Your task to perform on an android device: change the clock display to digital Image 0: 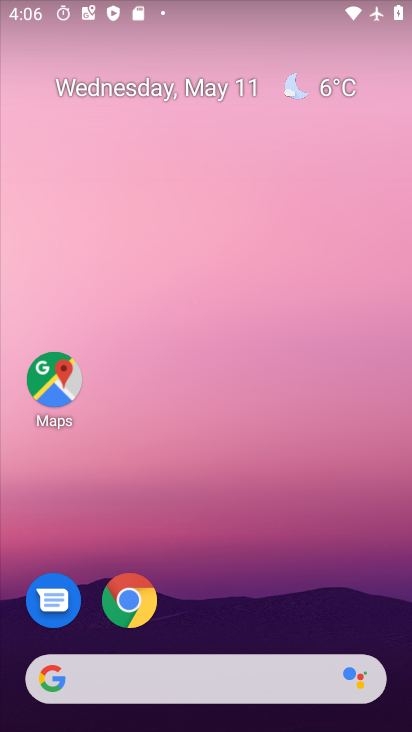
Step 0: drag from (373, 706) to (220, 217)
Your task to perform on an android device: change the clock display to digital Image 1: 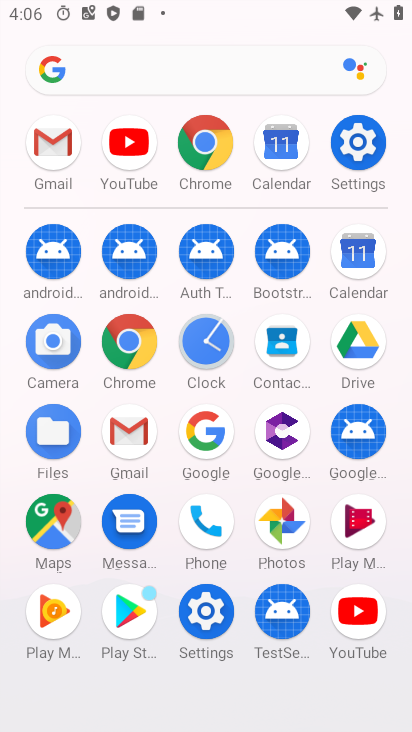
Step 1: click (201, 348)
Your task to perform on an android device: change the clock display to digital Image 2: 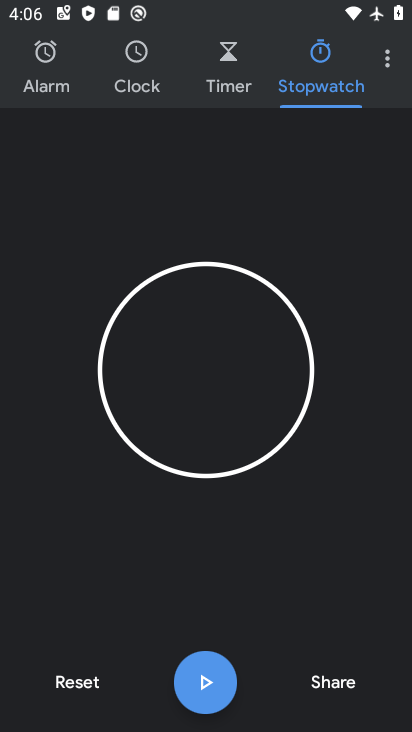
Step 2: click (387, 46)
Your task to perform on an android device: change the clock display to digital Image 3: 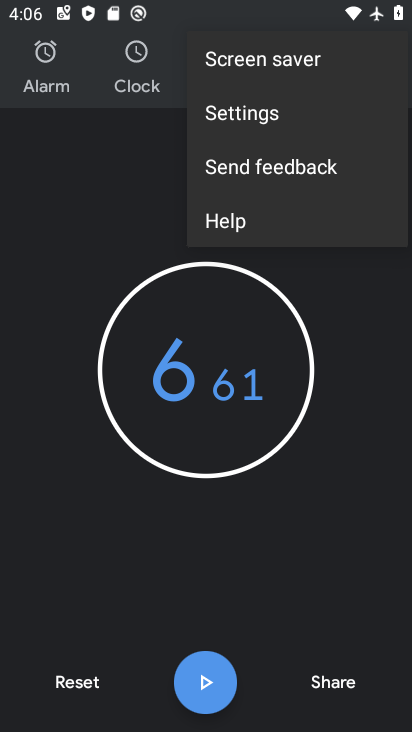
Step 3: click (260, 120)
Your task to perform on an android device: change the clock display to digital Image 4: 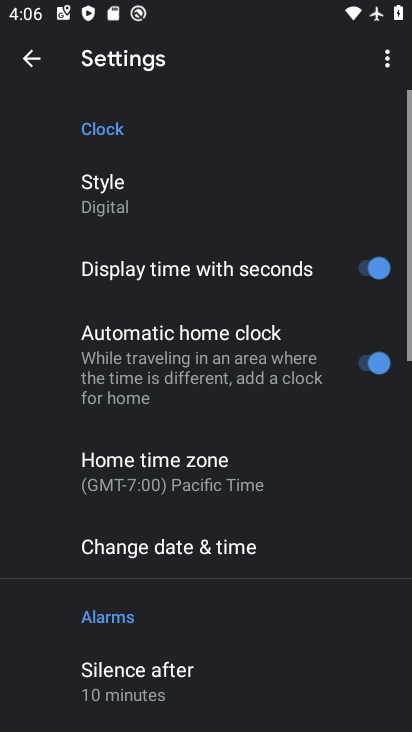
Step 4: click (209, 190)
Your task to perform on an android device: change the clock display to digital Image 5: 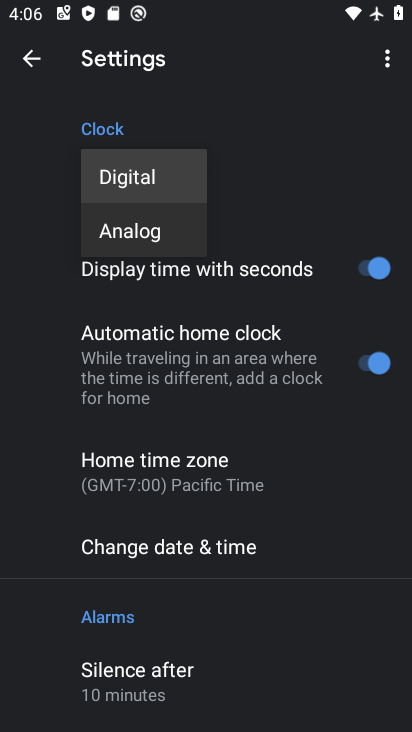
Step 5: click (185, 187)
Your task to perform on an android device: change the clock display to digital Image 6: 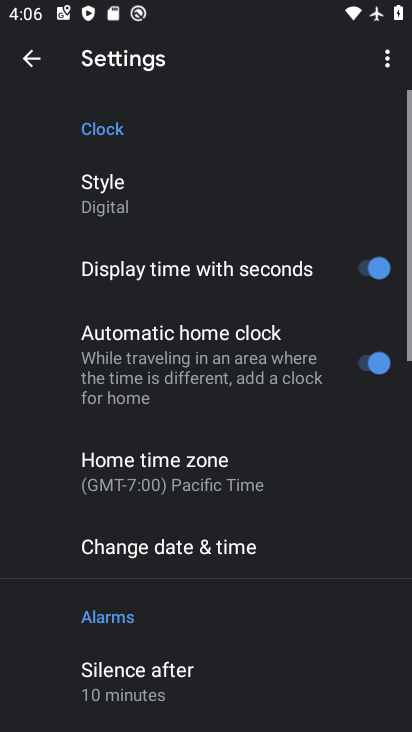
Step 6: task complete